Your task to perform on an android device: View the shopping cart on bestbuy.com. Add "bose soundlink mini" to the cart on bestbuy.com Image 0: 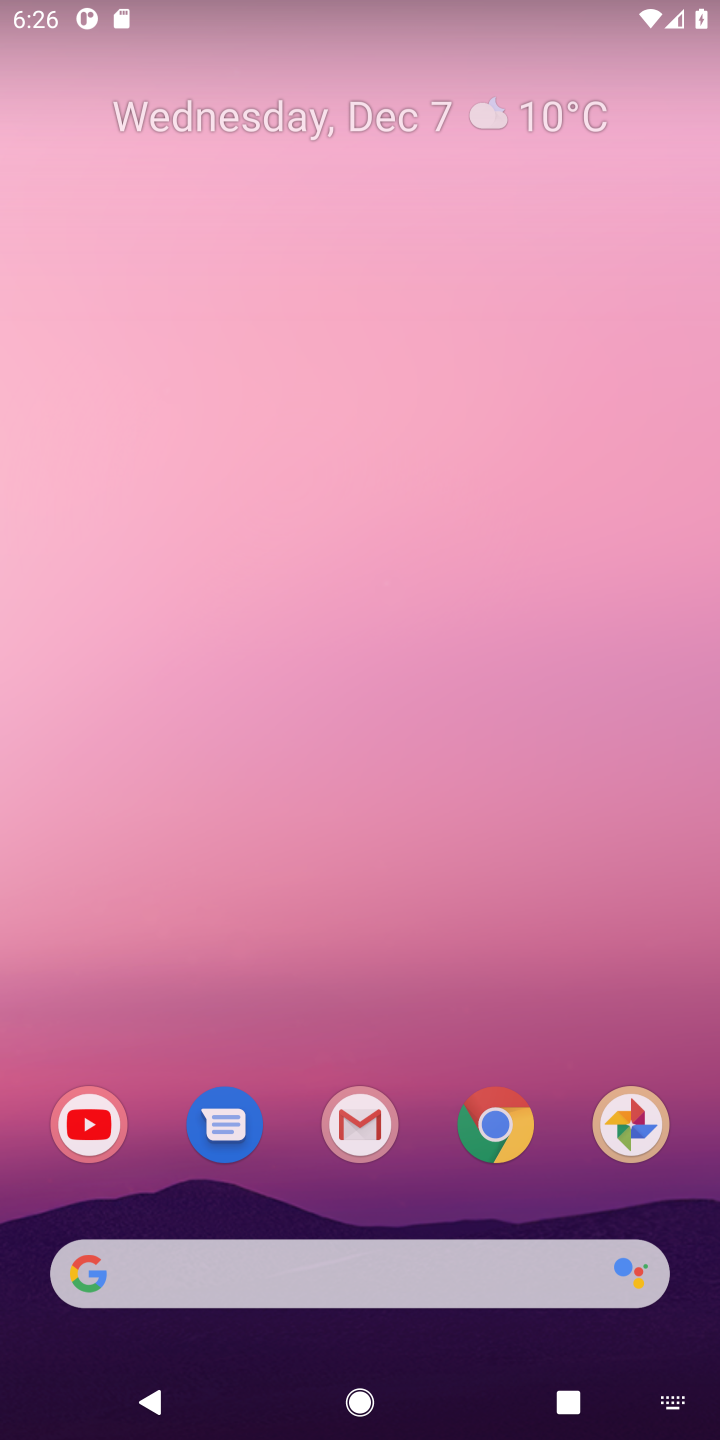
Step 0: press home button
Your task to perform on an android device: View the shopping cart on bestbuy.com. Add "bose soundlink mini" to the cart on bestbuy.com Image 1: 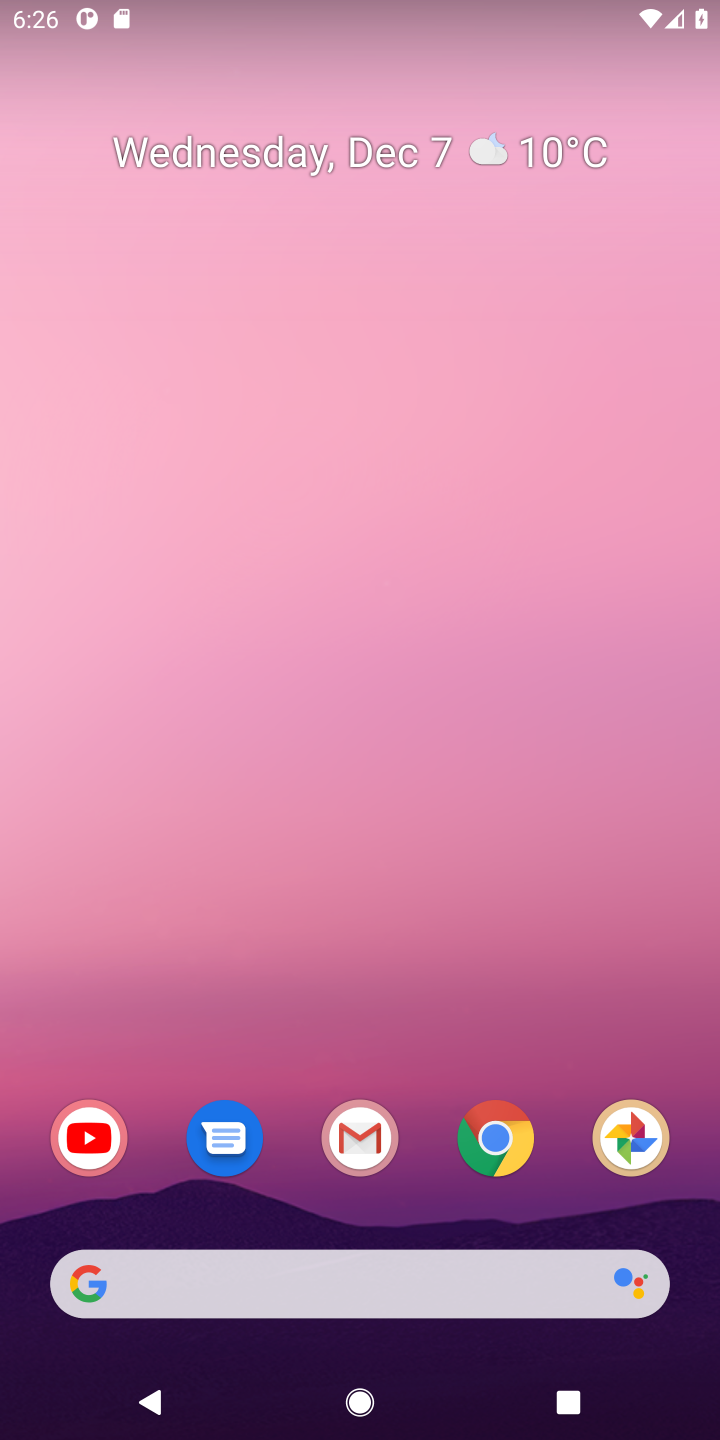
Step 1: click (222, 1292)
Your task to perform on an android device: View the shopping cart on bestbuy.com. Add "bose soundlink mini" to the cart on bestbuy.com Image 2: 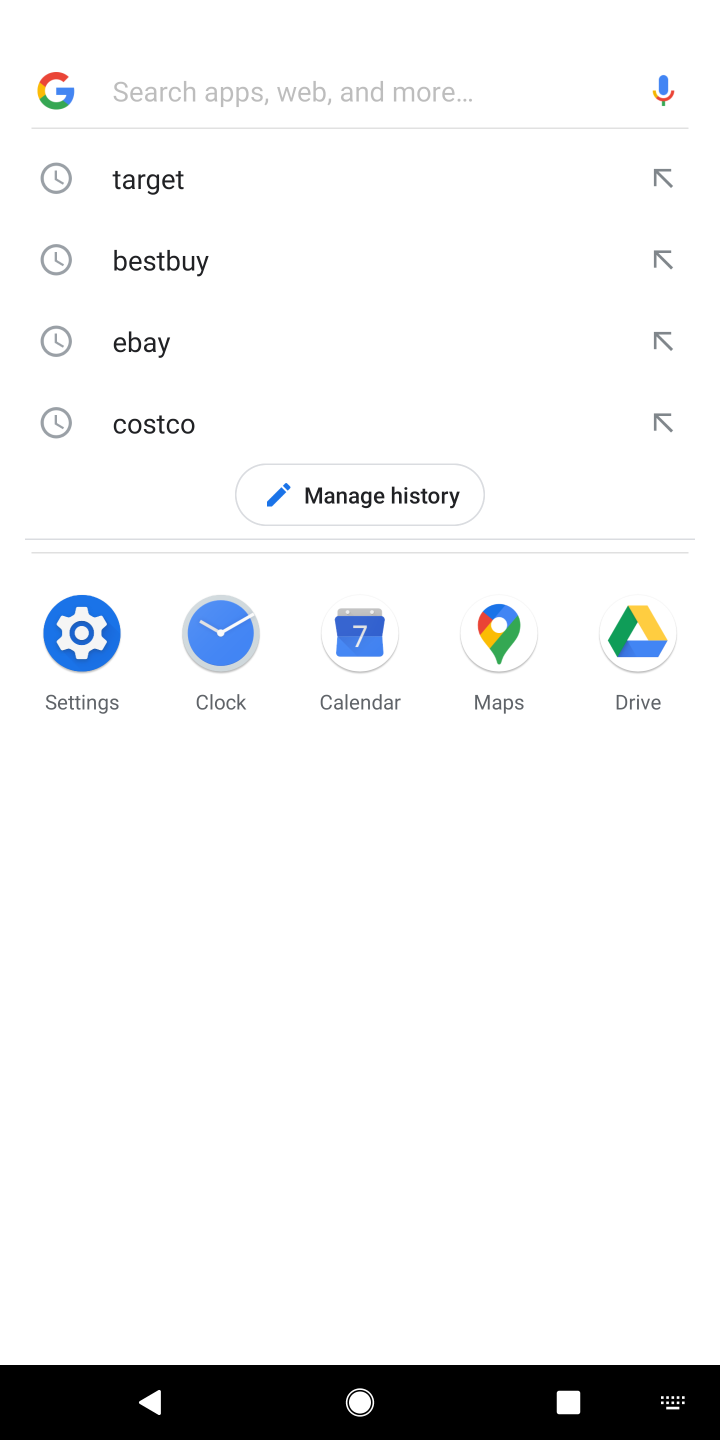
Step 2: type " bestbuy.com"
Your task to perform on an android device: View the shopping cart on bestbuy.com. Add "bose soundlink mini" to the cart on bestbuy.com Image 3: 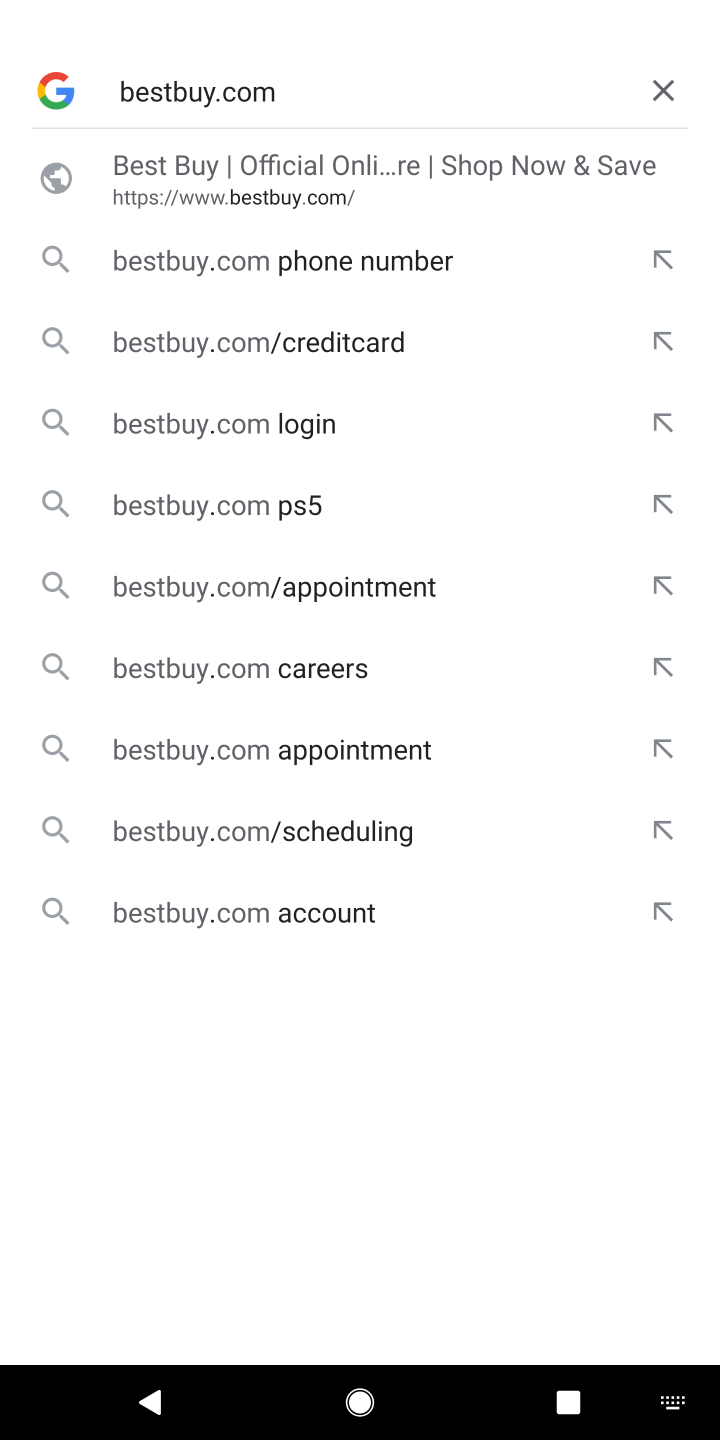
Step 3: press enter
Your task to perform on an android device: View the shopping cart on bestbuy.com. Add "bose soundlink mini" to the cart on bestbuy.com Image 4: 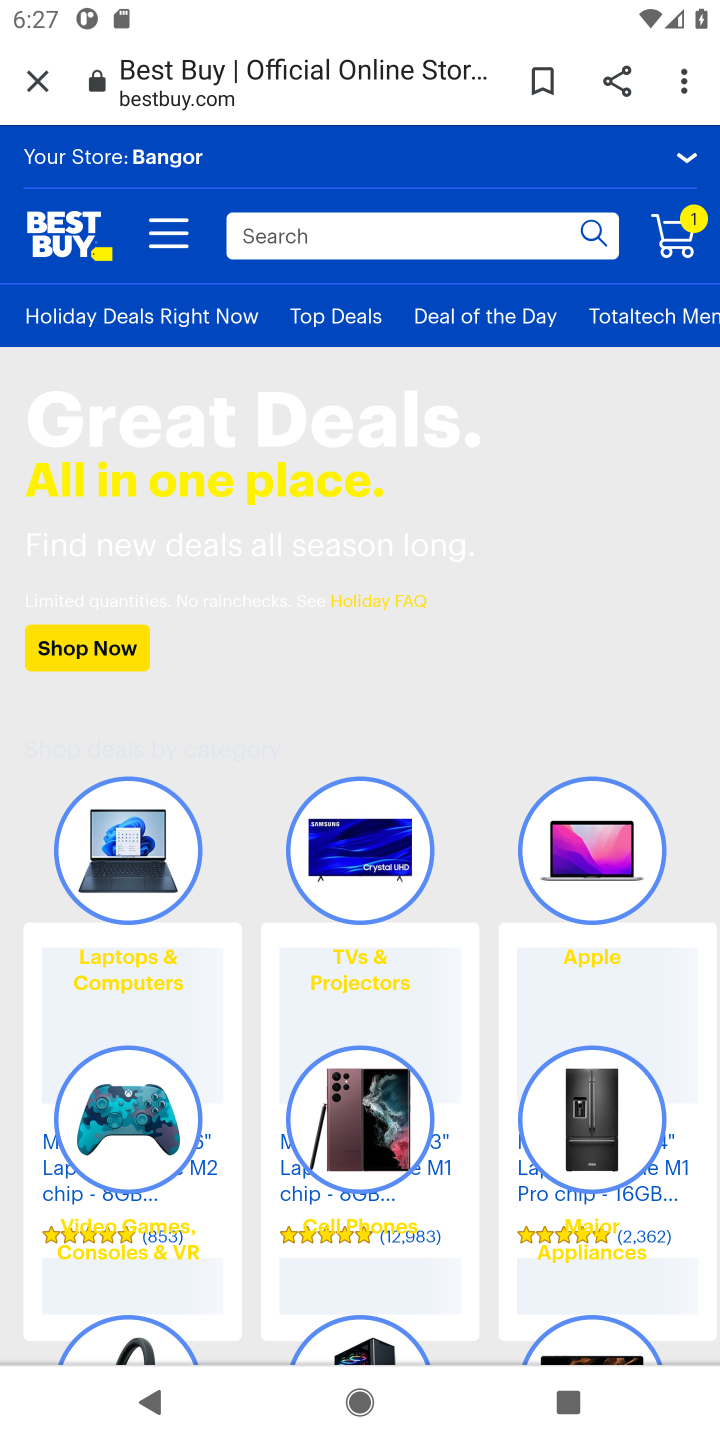
Step 4: click (666, 229)
Your task to perform on an android device: View the shopping cart on bestbuy.com. Add "bose soundlink mini" to the cart on bestbuy.com Image 5: 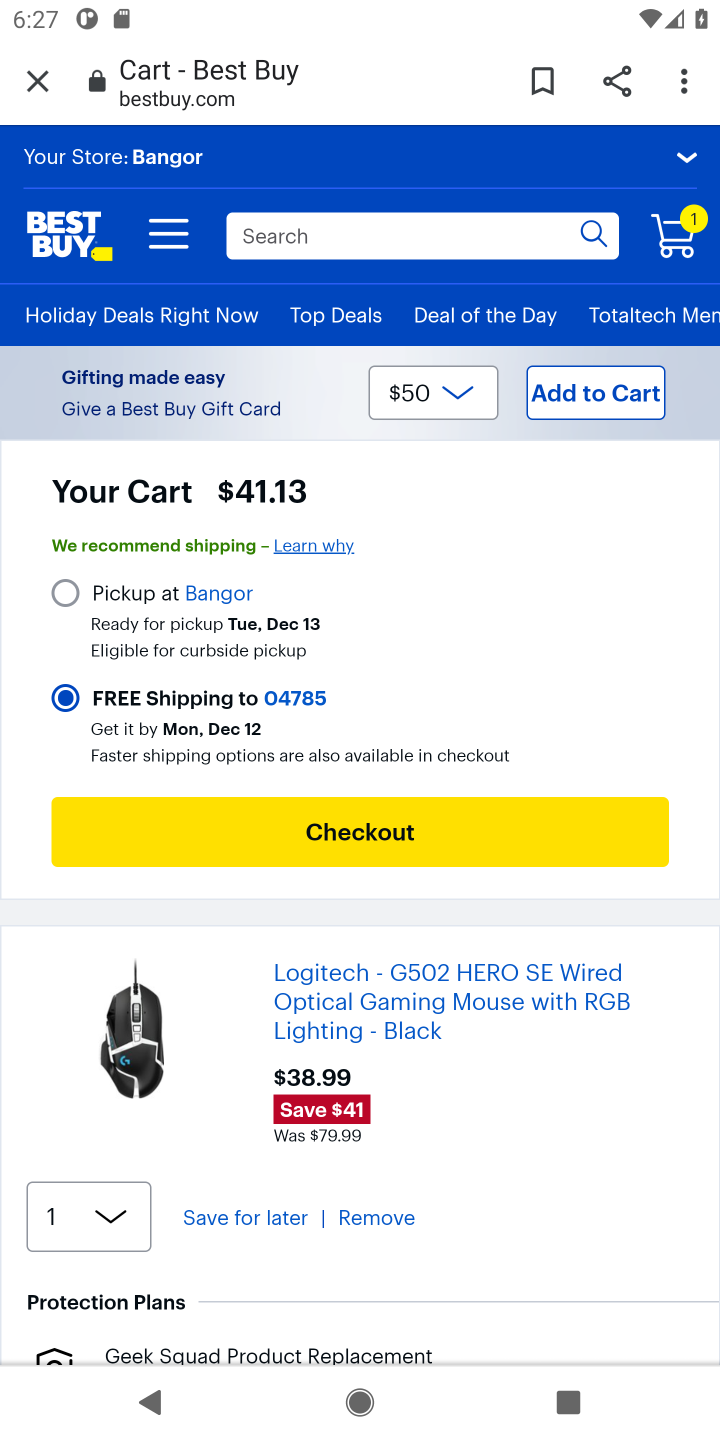
Step 5: click (353, 238)
Your task to perform on an android device: View the shopping cart on bestbuy.com. Add "bose soundlink mini" to the cart on bestbuy.com Image 6: 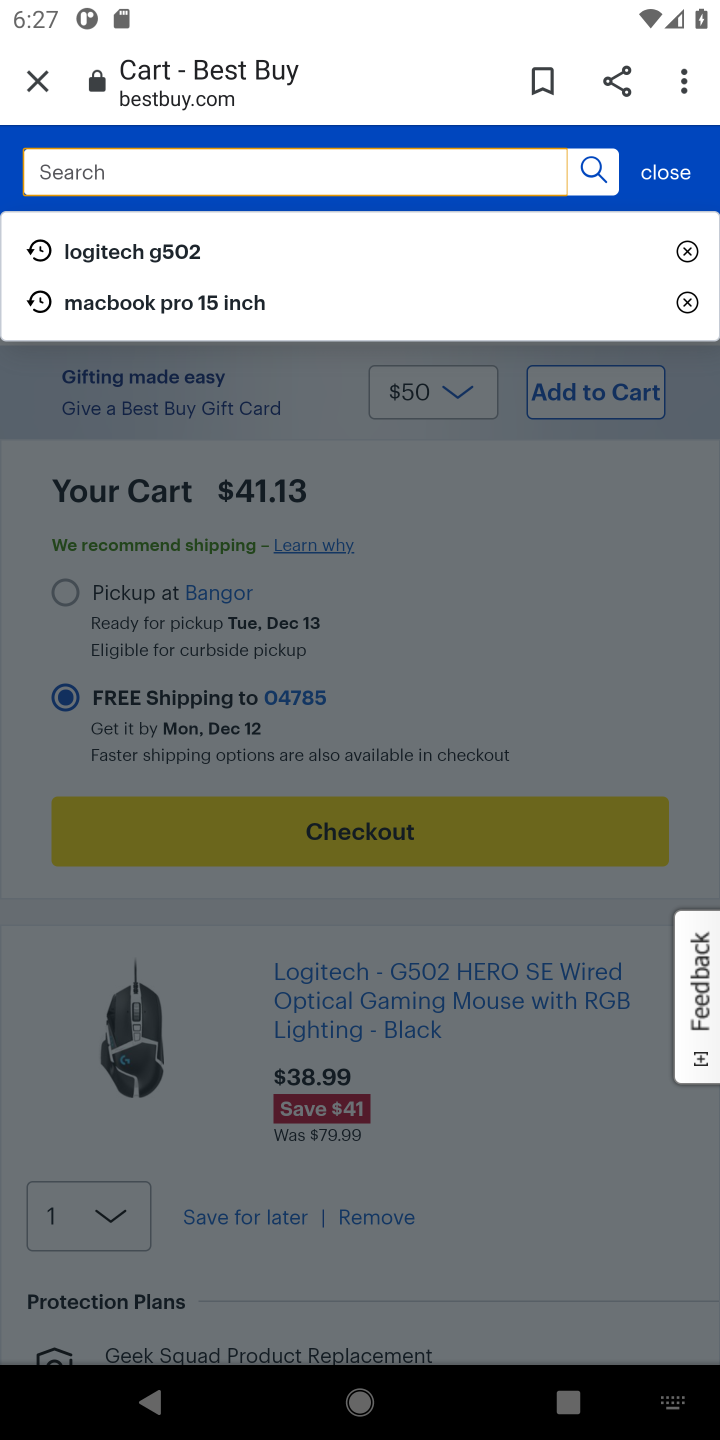
Step 6: type "bose soundlink mini"
Your task to perform on an android device: View the shopping cart on bestbuy.com. Add "bose soundlink mini" to the cart on bestbuy.com Image 7: 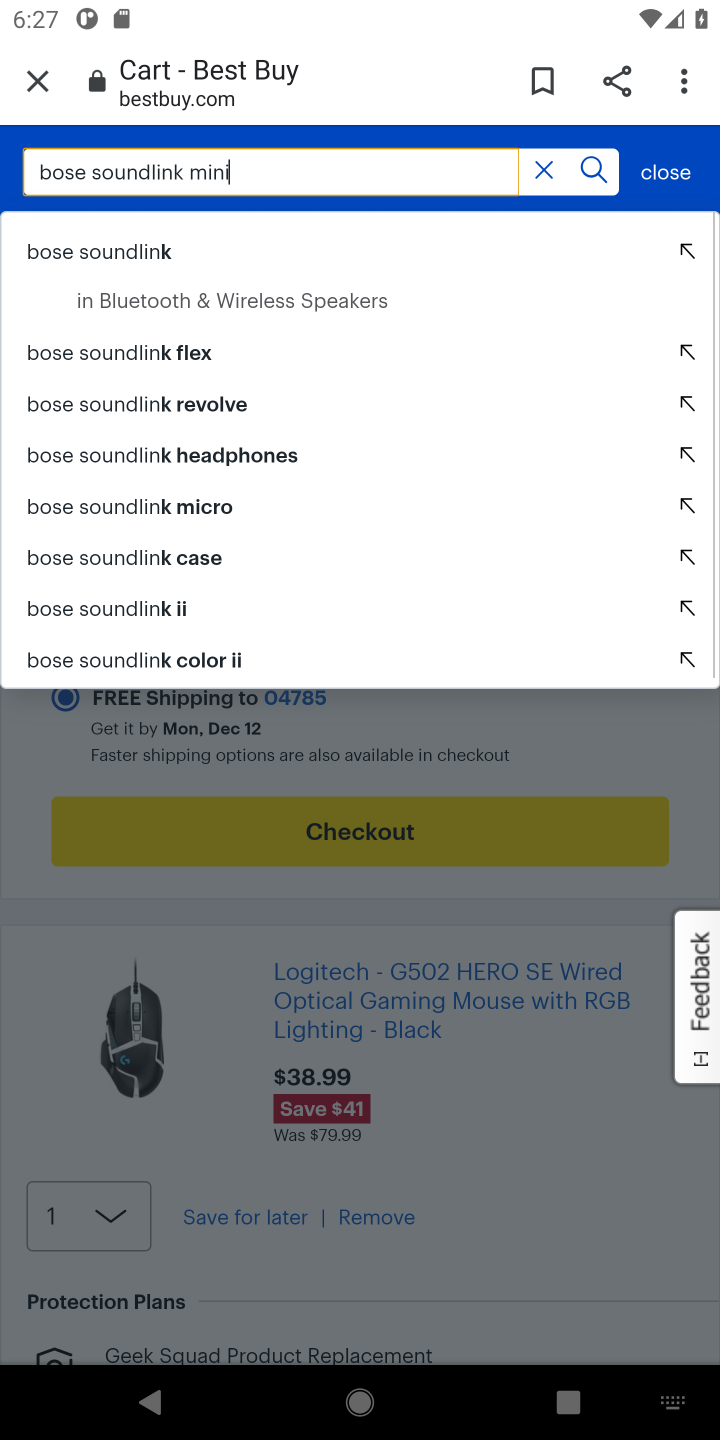
Step 7: press enter
Your task to perform on an android device: View the shopping cart on bestbuy.com. Add "bose soundlink mini" to the cart on bestbuy.com Image 8: 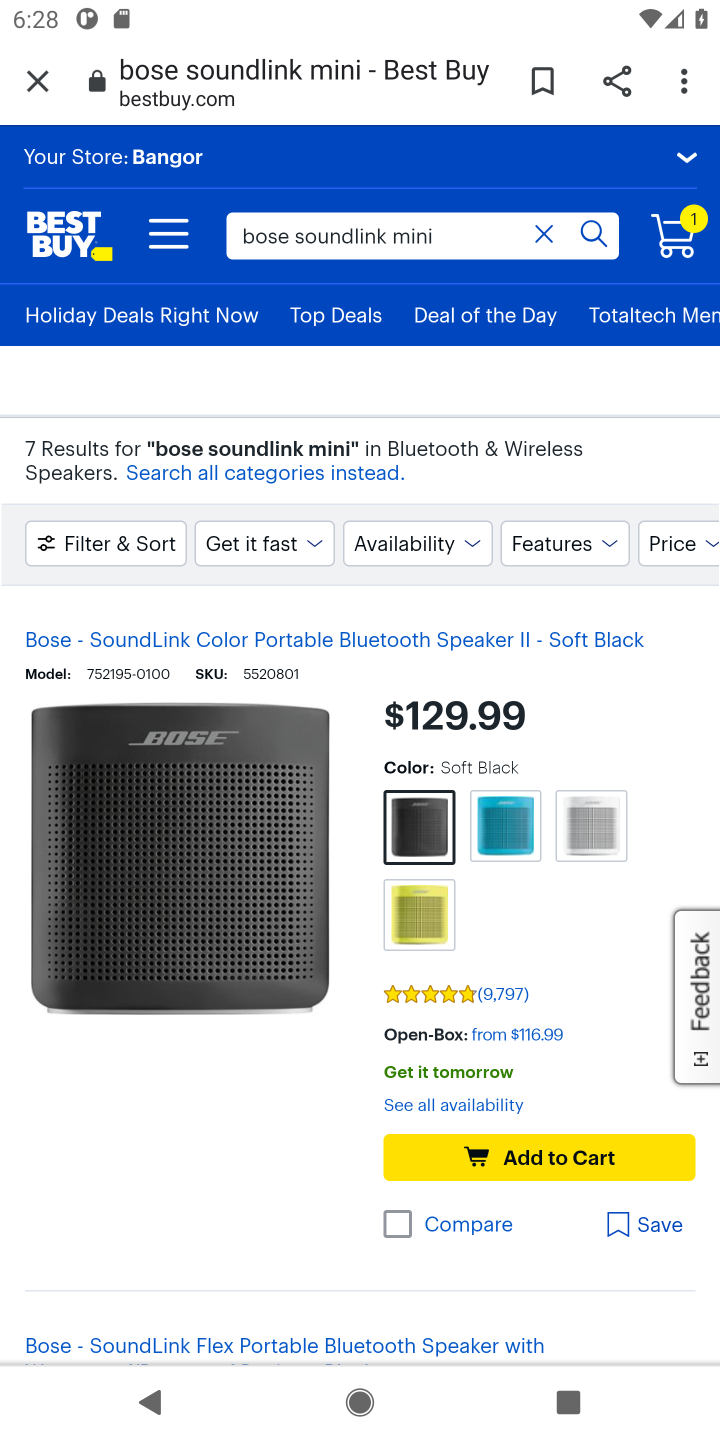
Step 8: drag from (466, 1253) to (485, 845)
Your task to perform on an android device: View the shopping cart on bestbuy.com. Add "bose soundlink mini" to the cart on bestbuy.com Image 9: 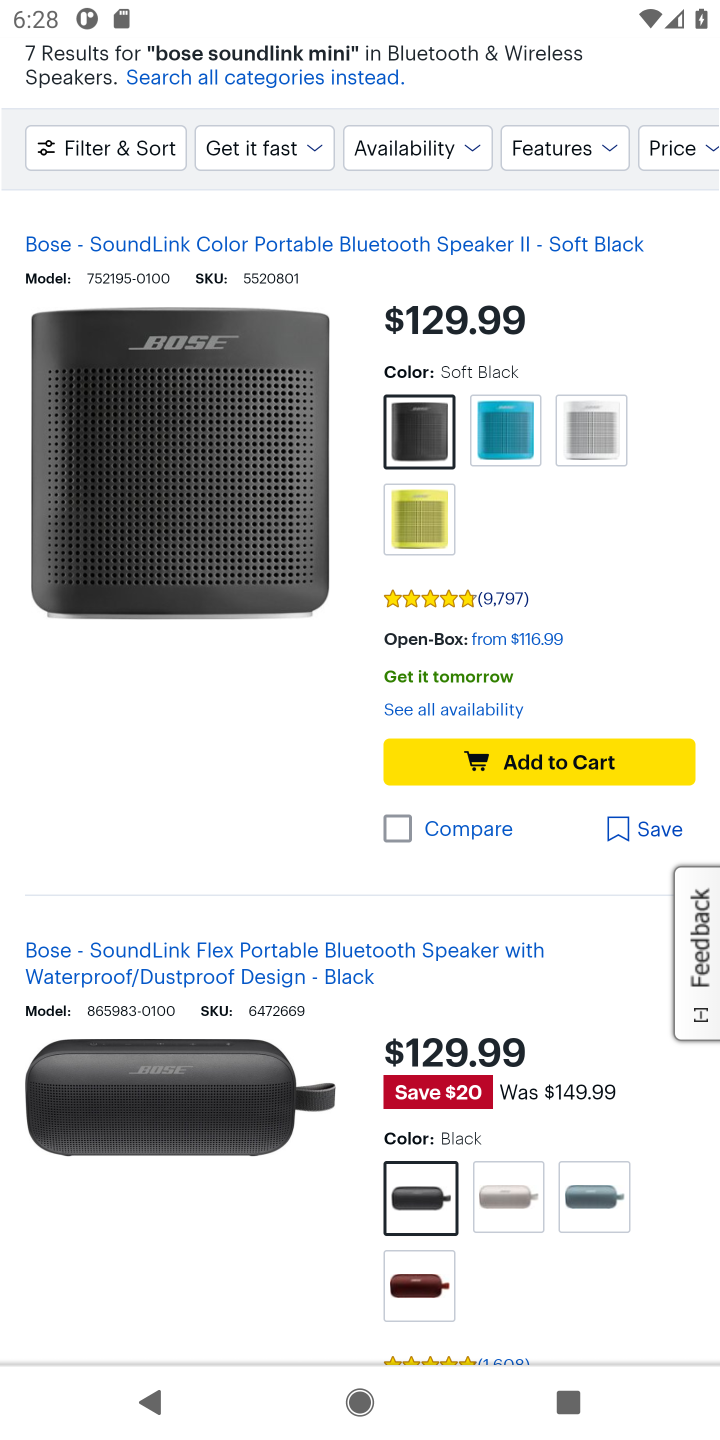
Step 9: drag from (467, 1111) to (503, 644)
Your task to perform on an android device: View the shopping cart on bestbuy.com. Add "bose soundlink mini" to the cart on bestbuy.com Image 10: 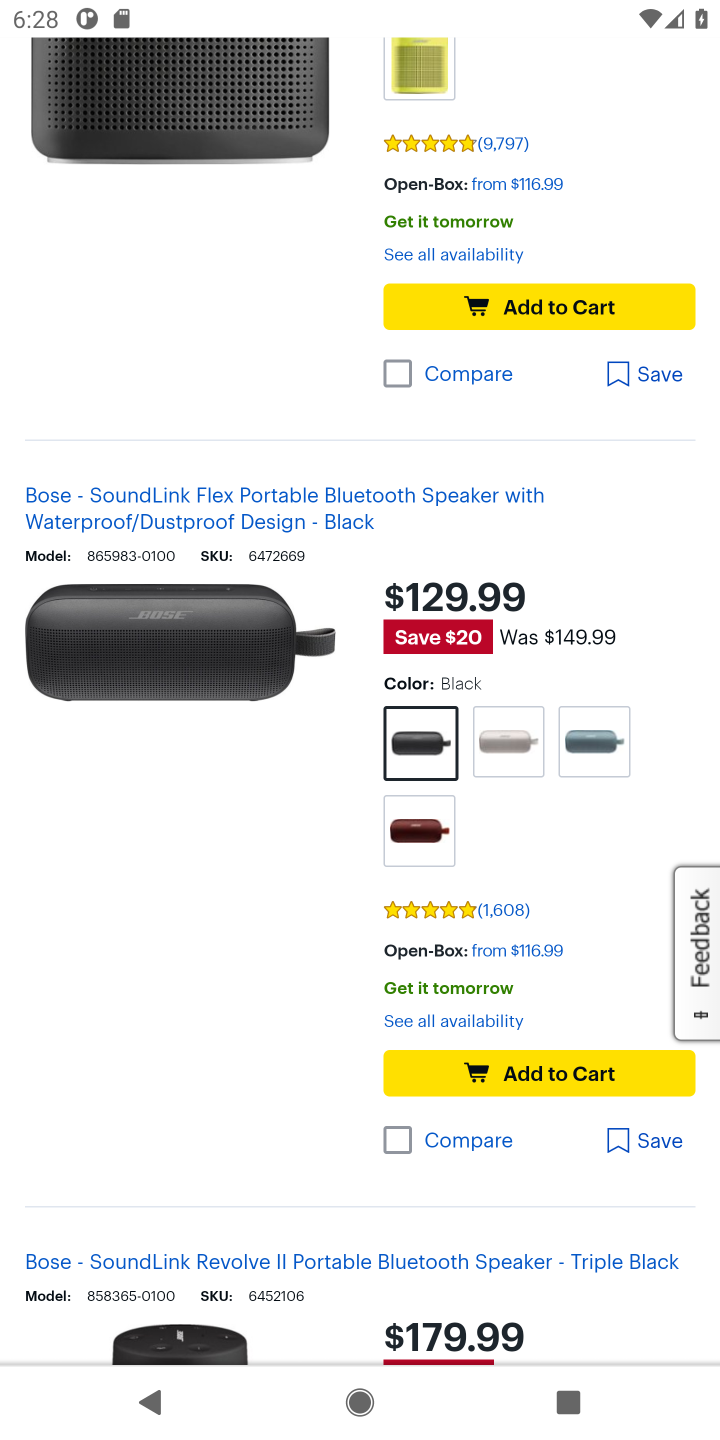
Step 10: drag from (464, 1236) to (505, 649)
Your task to perform on an android device: View the shopping cart on bestbuy.com. Add "bose soundlink mini" to the cart on bestbuy.com Image 11: 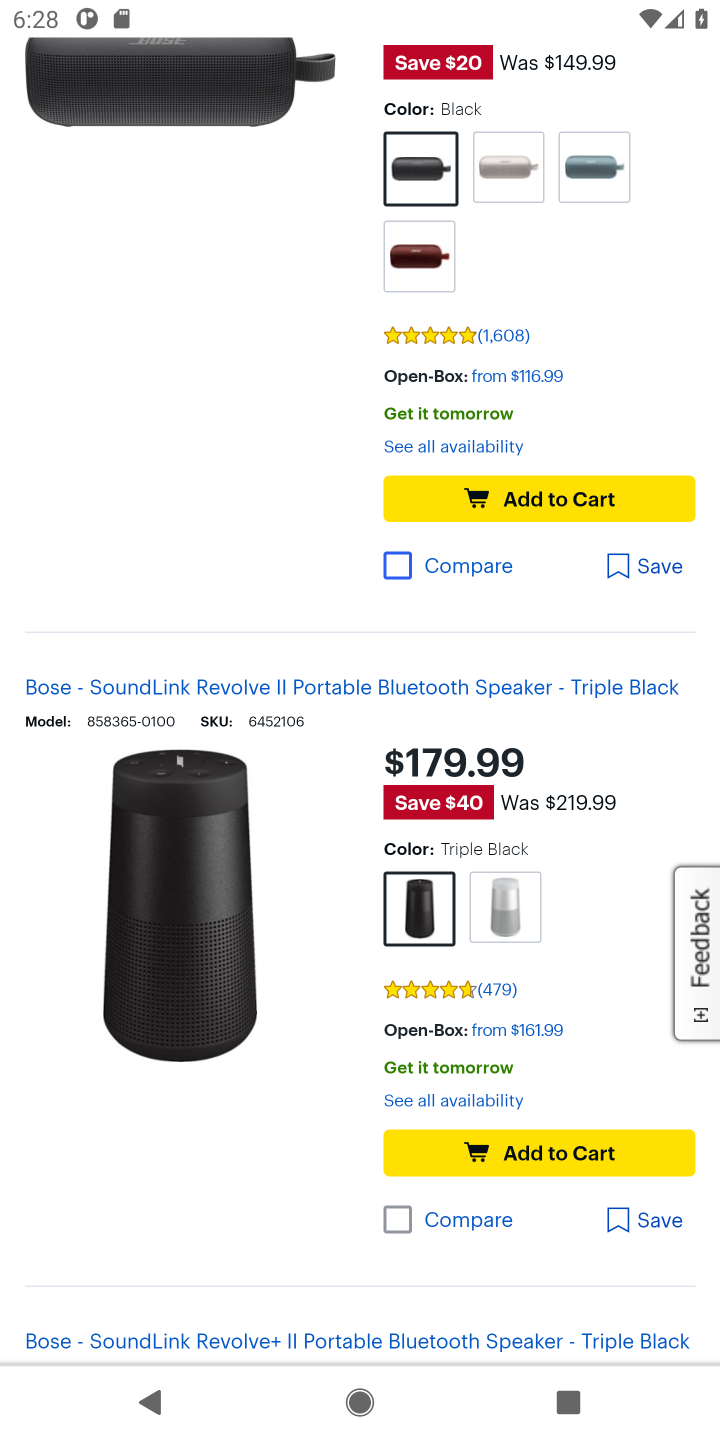
Step 11: drag from (243, 1215) to (322, 470)
Your task to perform on an android device: View the shopping cart on bestbuy.com. Add "bose soundlink mini" to the cart on bestbuy.com Image 12: 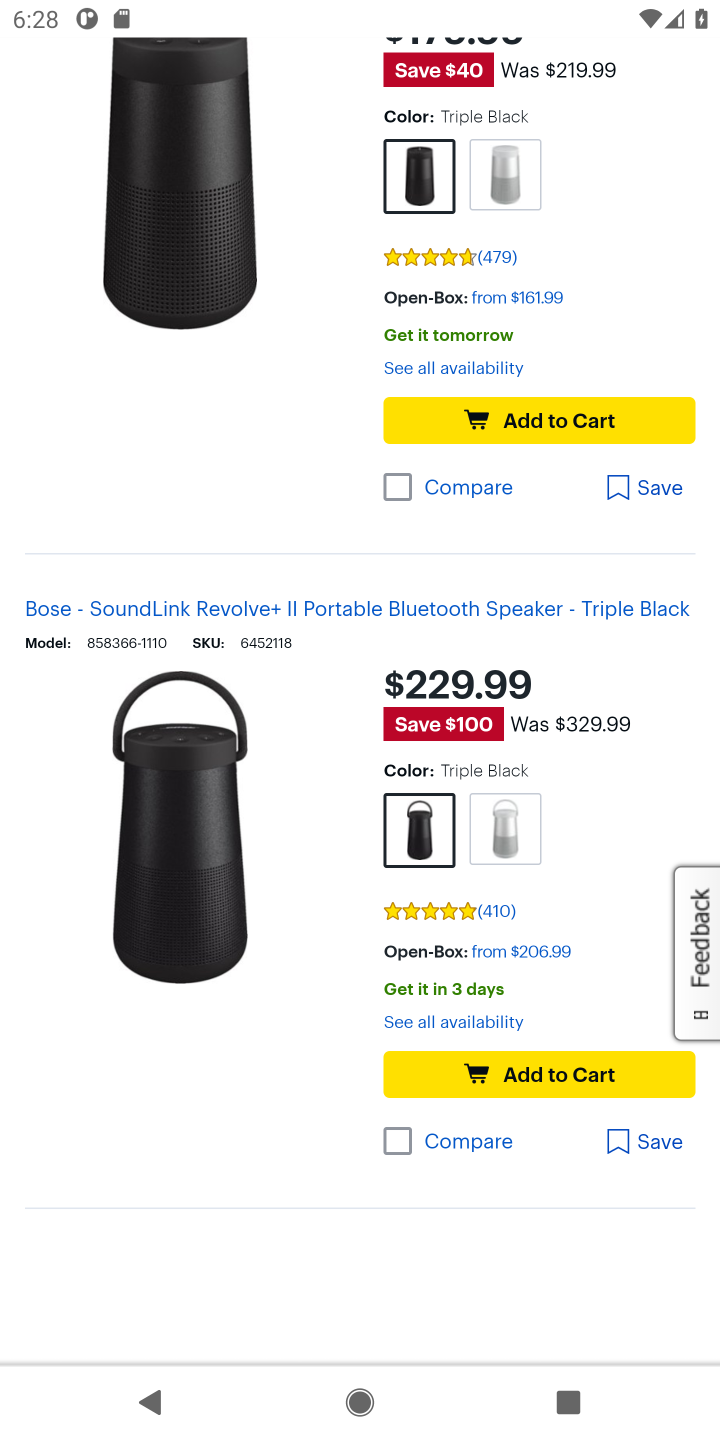
Step 12: drag from (262, 1134) to (387, 398)
Your task to perform on an android device: View the shopping cart on bestbuy.com. Add "bose soundlink mini" to the cart on bestbuy.com Image 13: 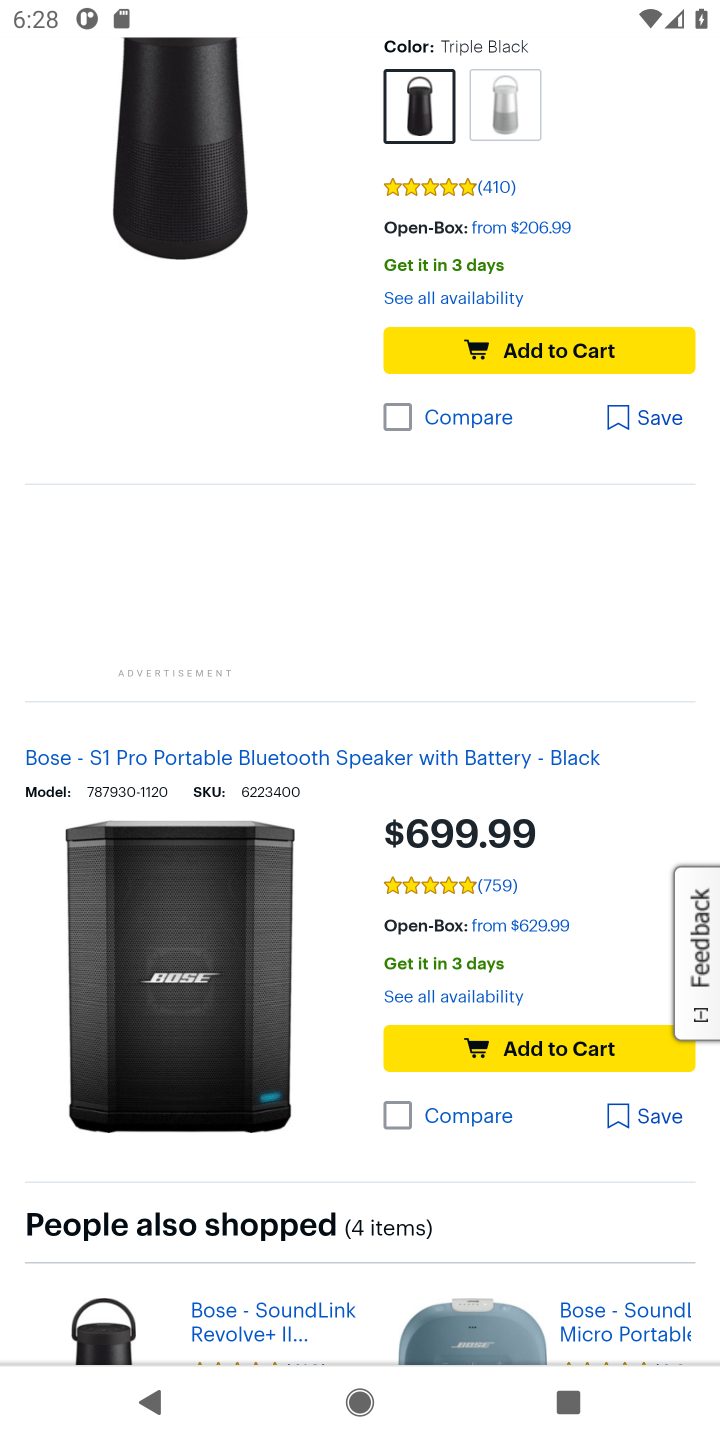
Step 13: drag from (309, 1156) to (400, 496)
Your task to perform on an android device: View the shopping cart on bestbuy.com. Add "bose soundlink mini" to the cart on bestbuy.com Image 14: 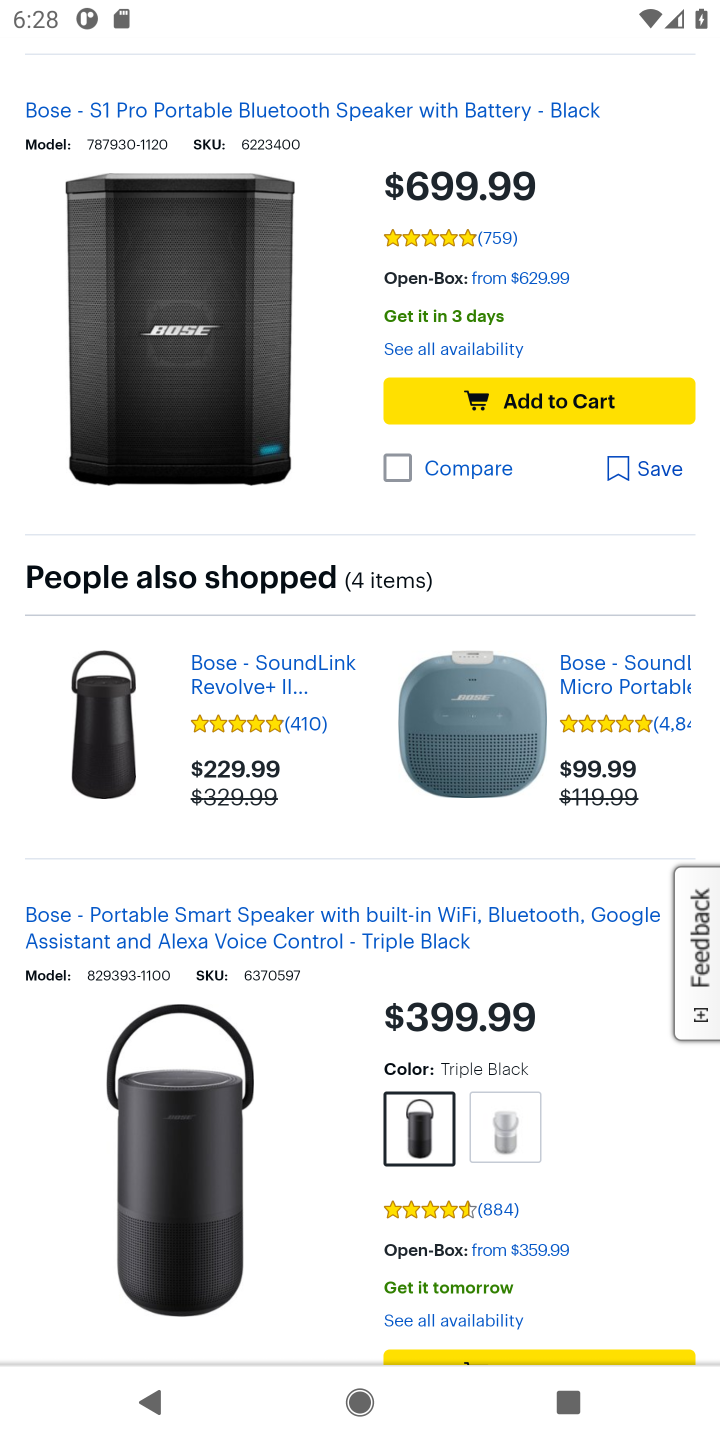
Step 14: drag from (343, 409) to (287, 1054)
Your task to perform on an android device: View the shopping cart on bestbuy.com. Add "bose soundlink mini" to the cart on bestbuy.com Image 15: 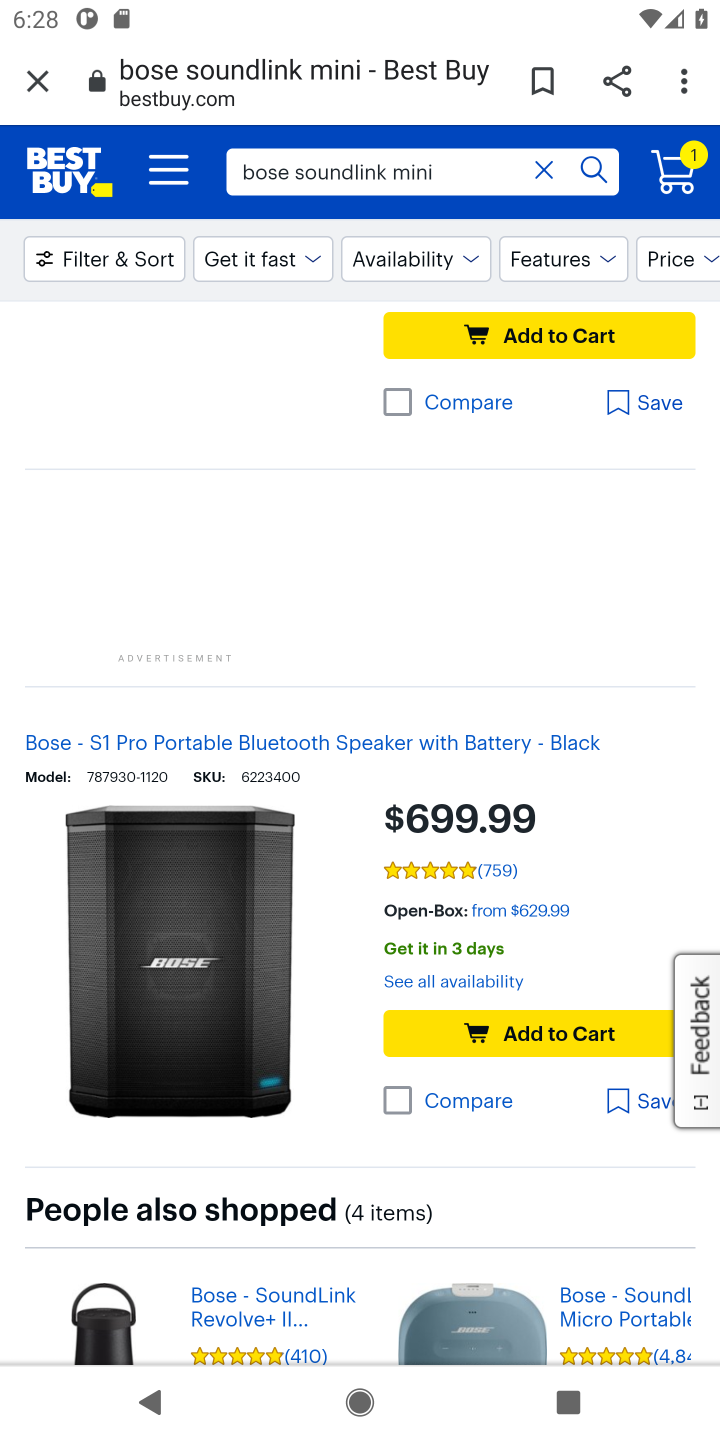
Step 15: drag from (354, 440) to (318, 1164)
Your task to perform on an android device: View the shopping cart on bestbuy.com. Add "bose soundlink mini" to the cart on bestbuy.com Image 16: 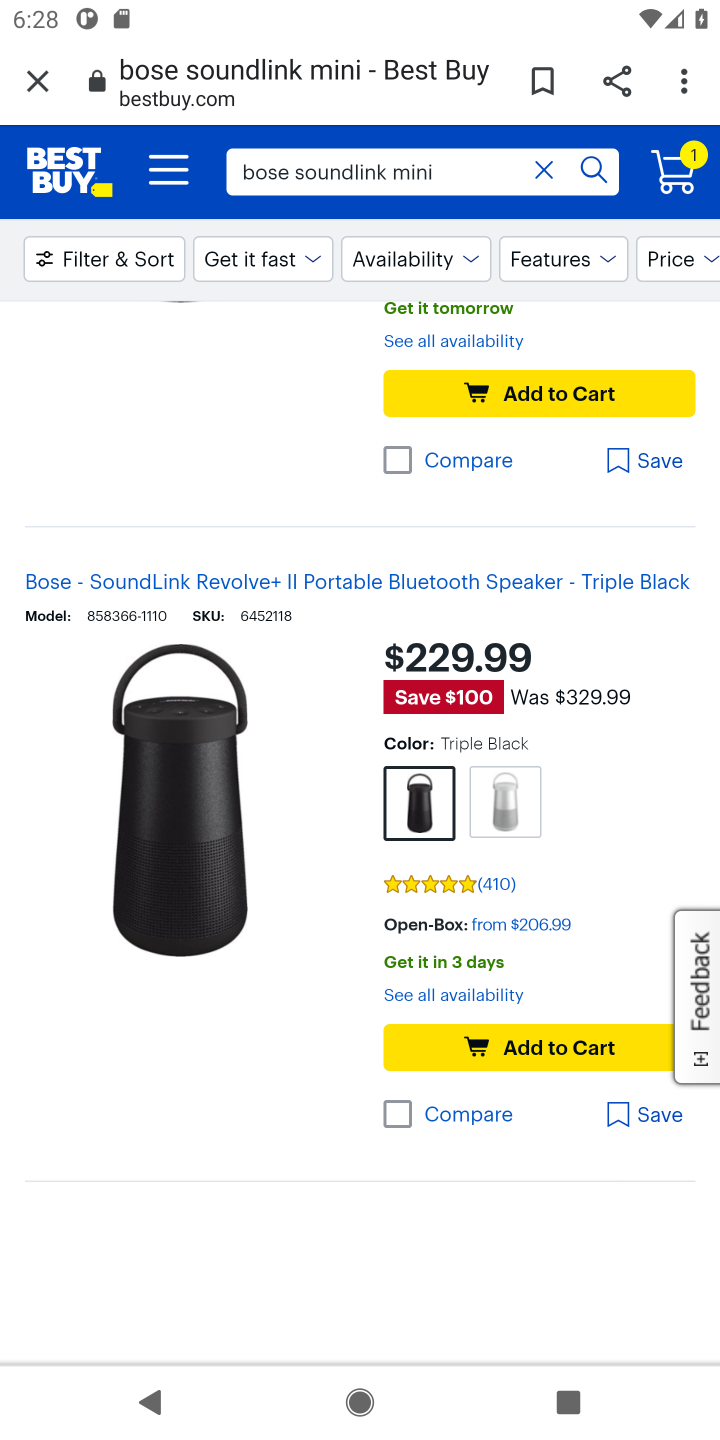
Step 16: drag from (319, 383) to (300, 1093)
Your task to perform on an android device: View the shopping cart on bestbuy.com. Add "bose soundlink mini" to the cart on bestbuy.com Image 17: 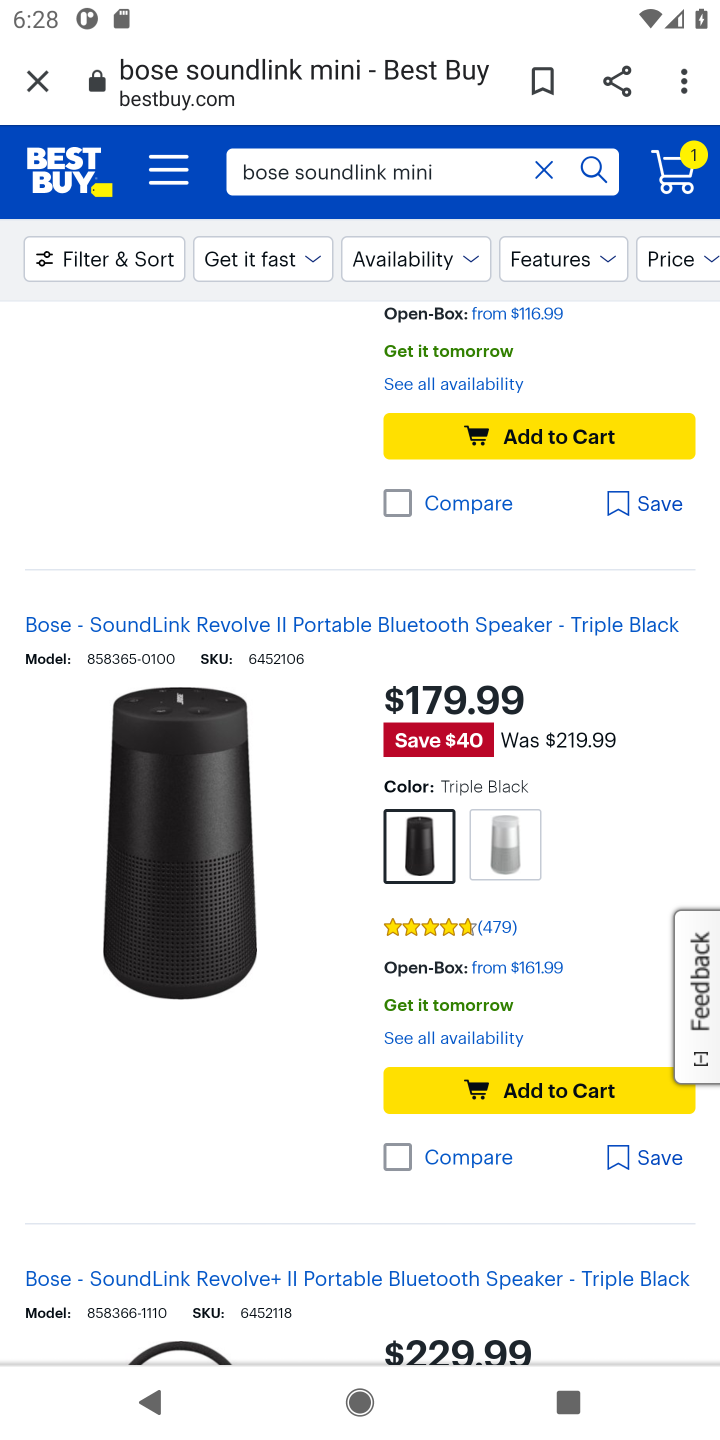
Step 17: drag from (319, 373) to (329, 1144)
Your task to perform on an android device: View the shopping cart on bestbuy.com. Add "bose soundlink mini" to the cart on bestbuy.com Image 18: 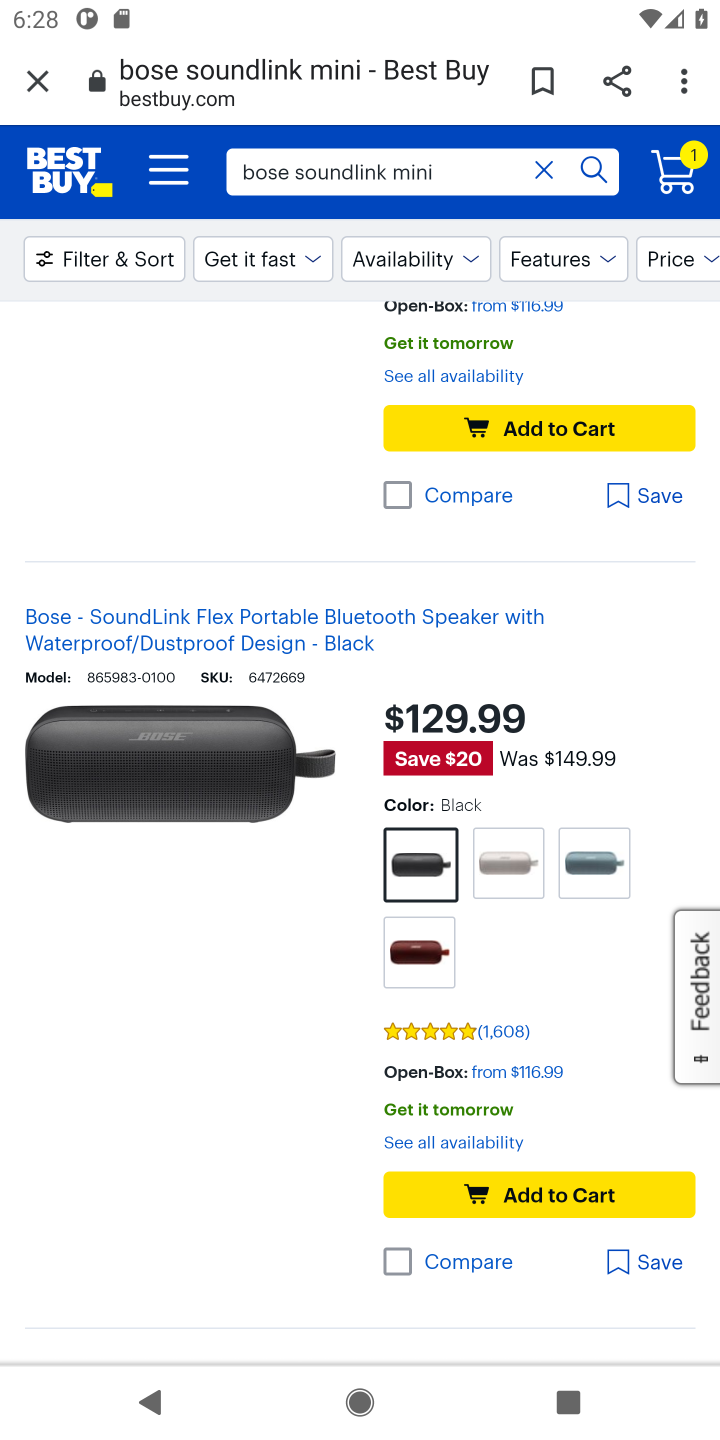
Step 18: drag from (310, 487) to (345, 1248)
Your task to perform on an android device: View the shopping cart on bestbuy.com. Add "bose soundlink mini" to the cart on bestbuy.com Image 19: 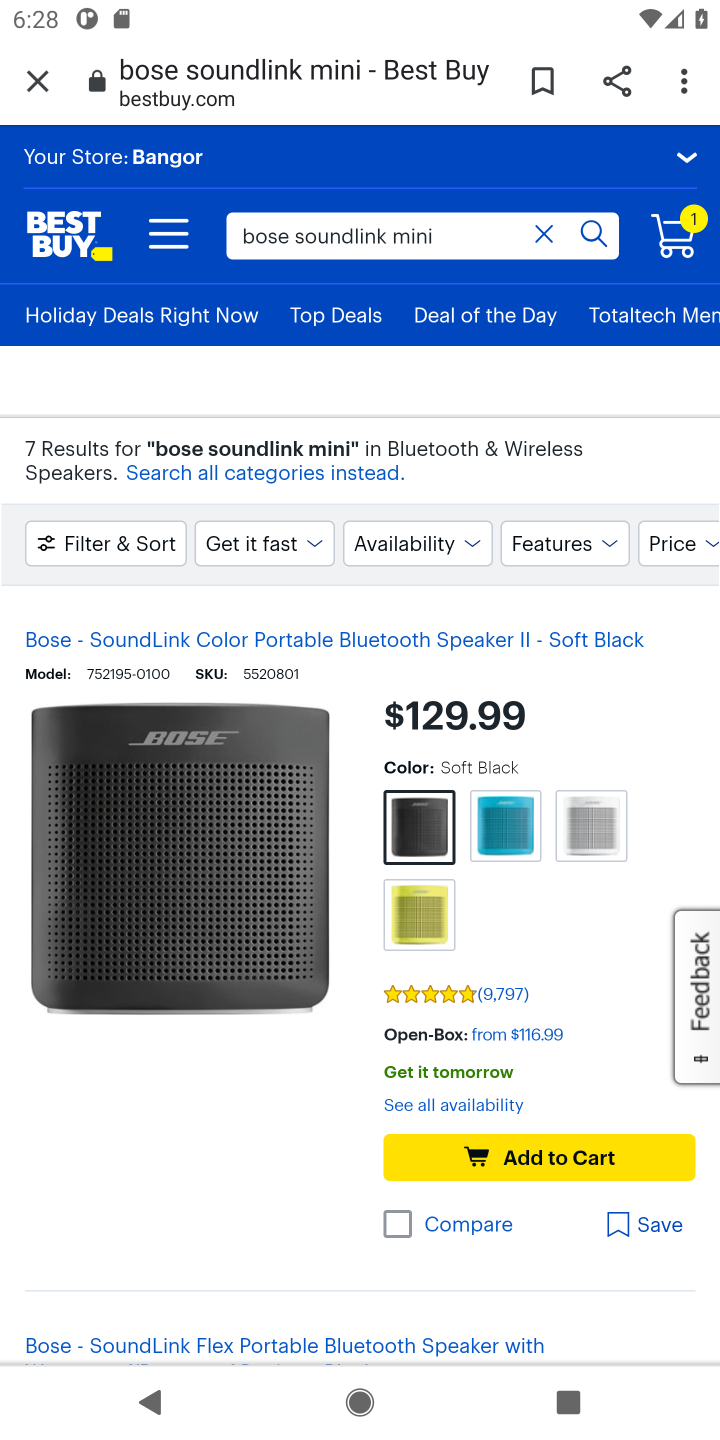
Step 19: click (561, 1145)
Your task to perform on an android device: View the shopping cart on bestbuy.com. Add "bose soundlink mini" to the cart on bestbuy.com Image 20: 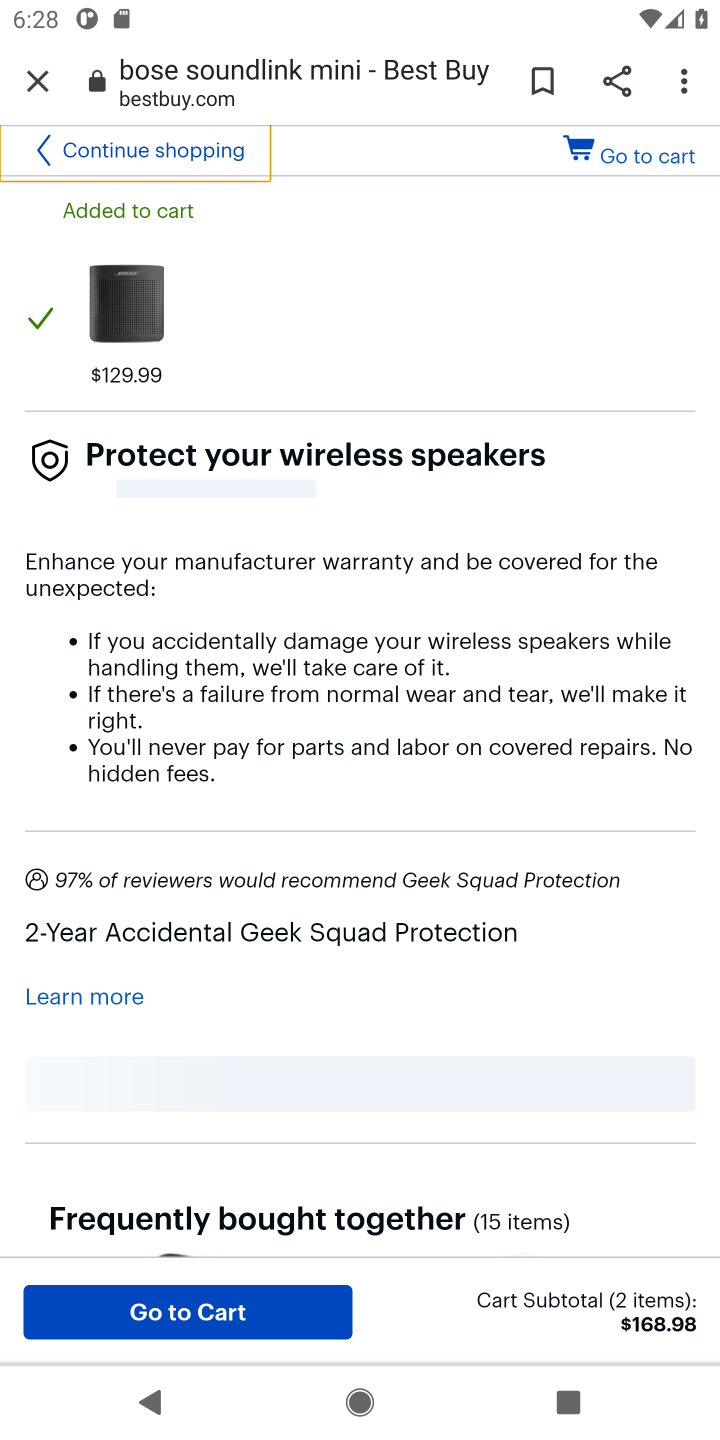
Step 20: task complete